Your task to perform on an android device: Do I have any events today? Image 0: 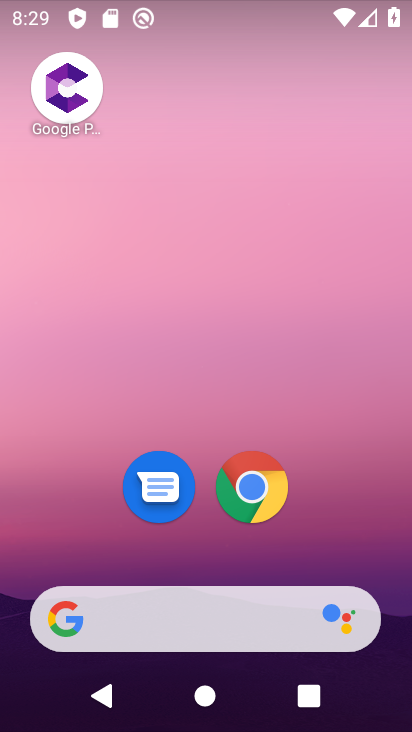
Step 0: press home button
Your task to perform on an android device: Do I have any events today? Image 1: 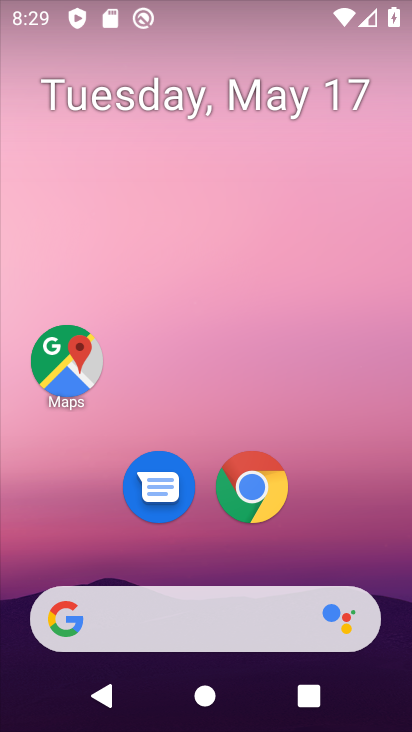
Step 1: drag from (249, 661) to (183, 204)
Your task to perform on an android device: Do I have any events today? Image 2: 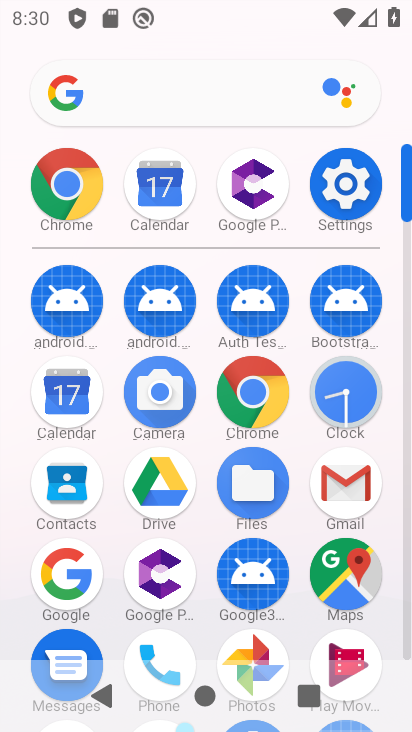
Step 2: click (85, 392)
Your task to perform on an android device: Do I have any events today? Image 3: 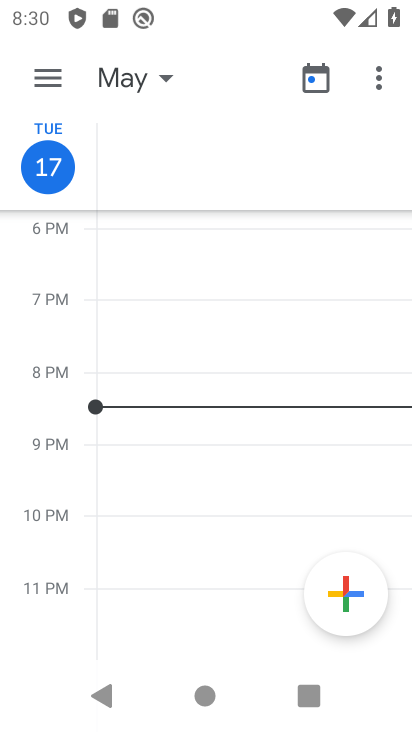
Step 3: click (60, 91)
Your task to perform on an android device: Do I have any events today? Image 4: 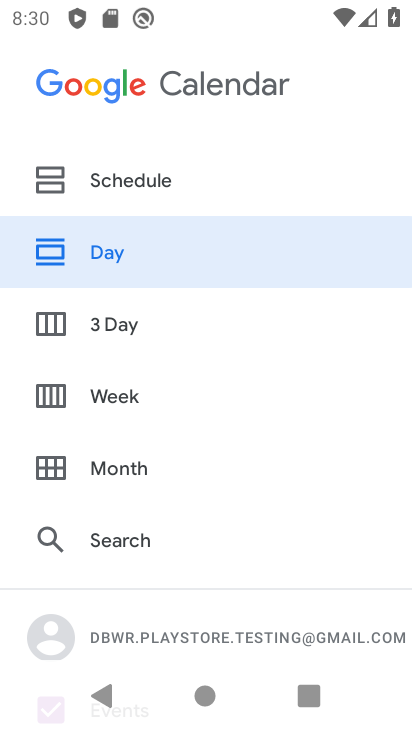
Step 4: click (102, 470)
Your task to perform on an android device: Do I have any events today? Image 5: 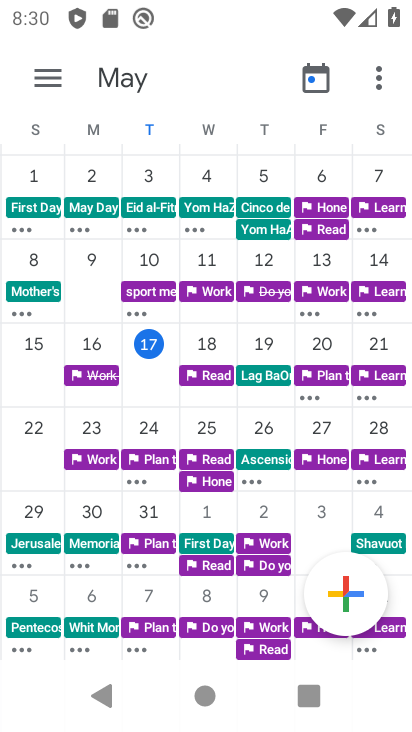
Step 5: click (164, 358)
Your task to perform on an android device: Do I have any events today? Image 6: 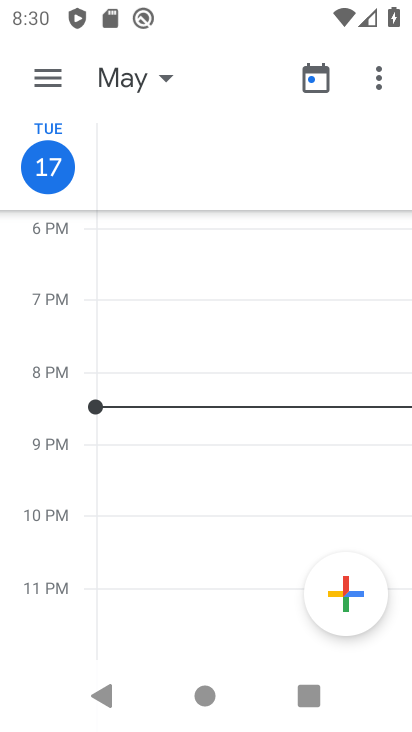
Step 6: task complete